Your task to perform on an android device: turn off picture-in-picture Image 0: 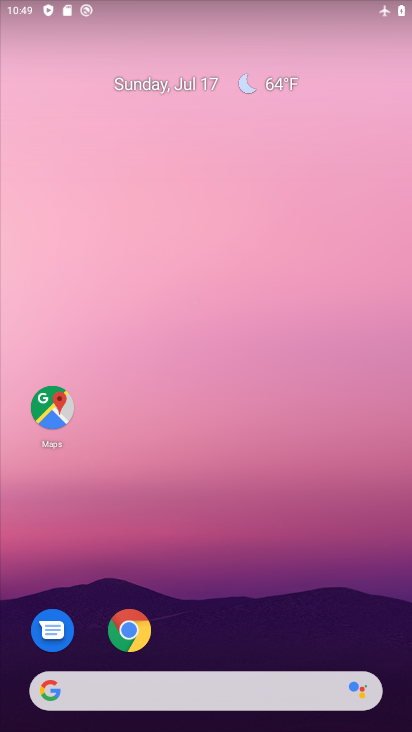
Step 0: drag from (390, 645) to (303, 89)
Your task to perform on an android device: turn off picture-in-picture Image 1: 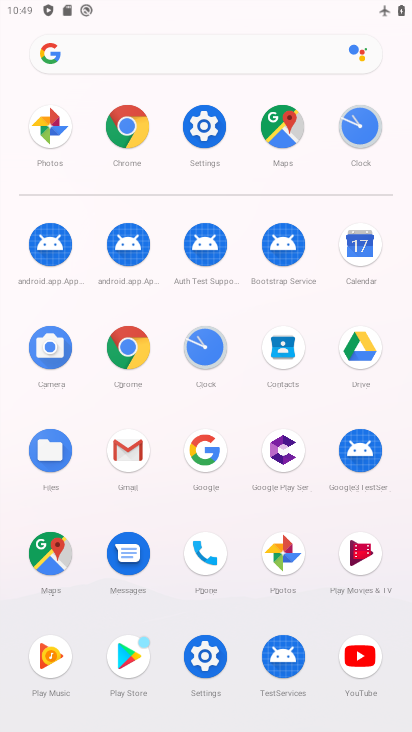
Step 1: click (205, 656)
Your task to perform on an android device: turn off picture-in-picture Image 2: 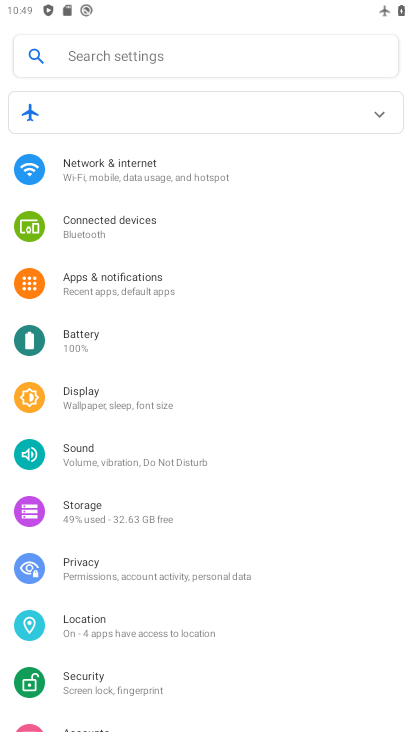
Step 2: click (91, 271)
Your task to perform on an android device: turn off picture-in-picture Image 3: 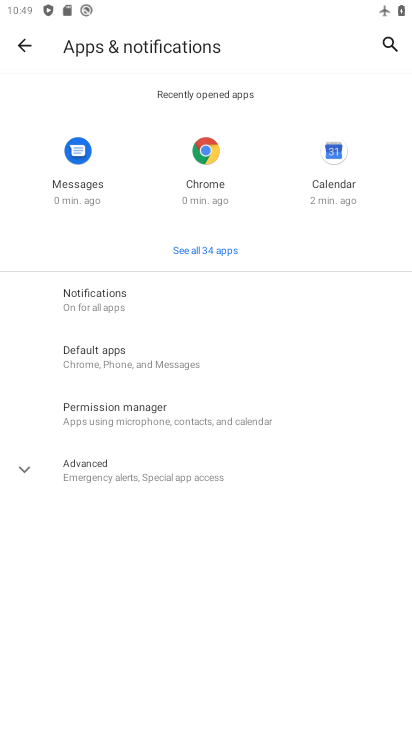
Step 3: click (17, 474)
Your task to perform on an android device: turn off picture-in-picture Image 4: 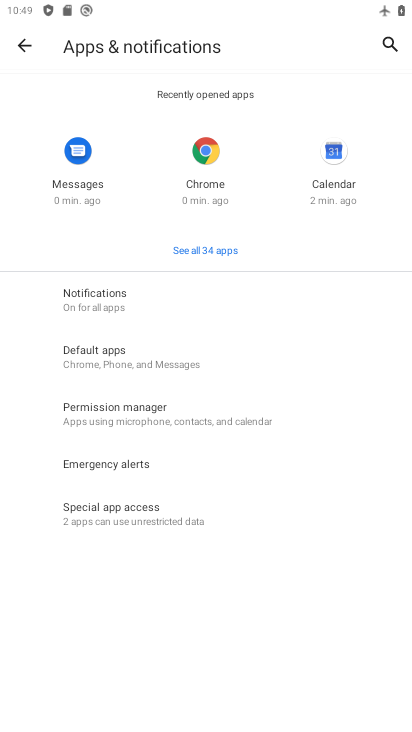
Step 4: click (133, 513)
Your task to perform on an android device: turn off picture-in-picture Image 5: 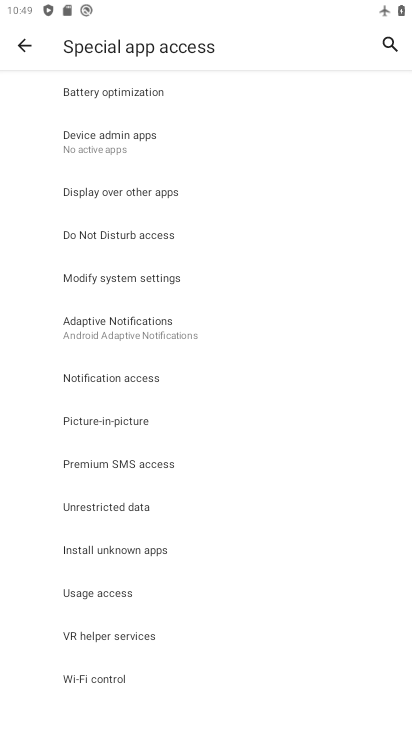
Step 5: click (93, 414)
Your task to perform on an android device: turn off picture-in-picture Image 6: 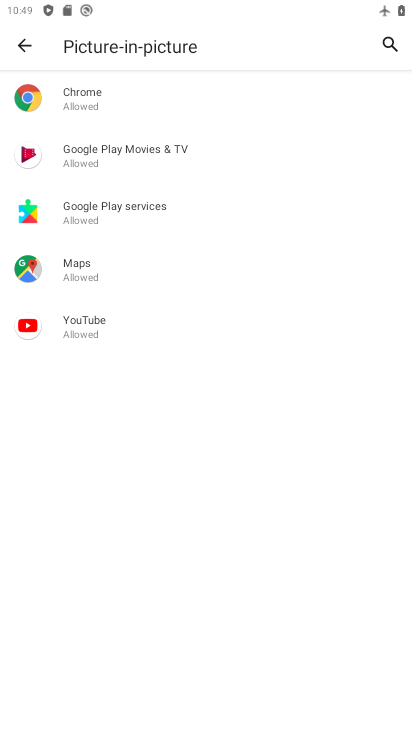
Step 6: click (86, 317)
Your task to perform on an android device: turn off picture-in-picture Image 7: 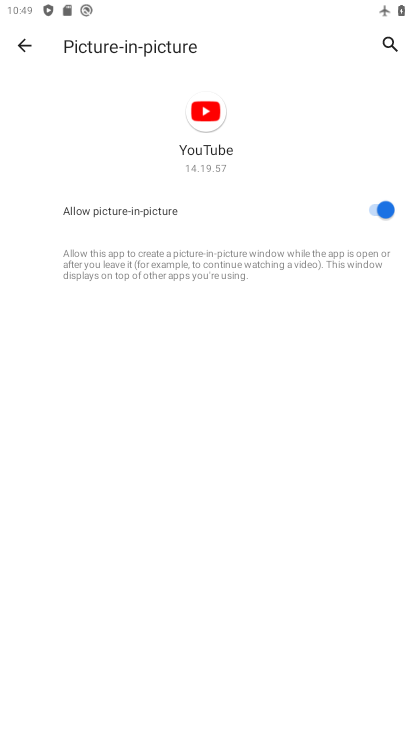
Step 7: click (373, 205)
Your task to perform on an android device: turn off picture-in-picture Image 8: 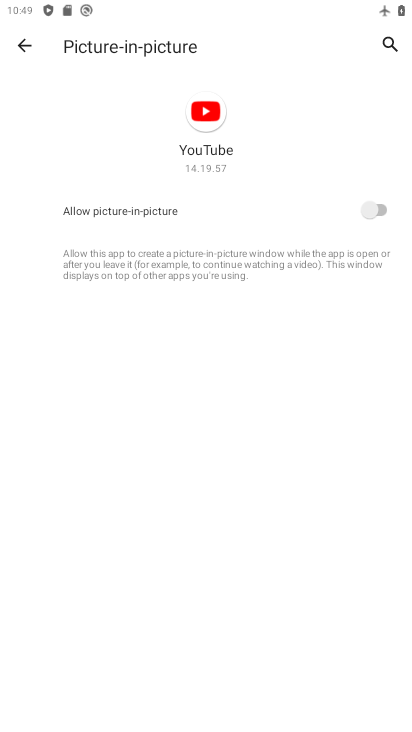
Step 8: task complete